Your task to perform on an android device: toggle improve location accuracy Image 0: 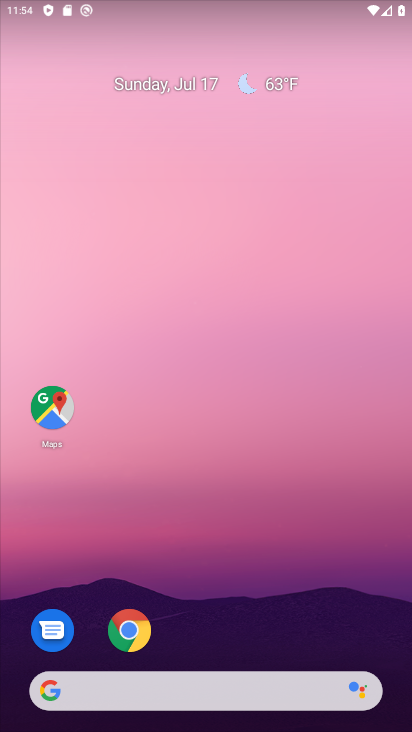
Step 0: drag from (234, 649) to (292, 98)
Your task to perform on an android device: toggle improve location accuracy Image 1: 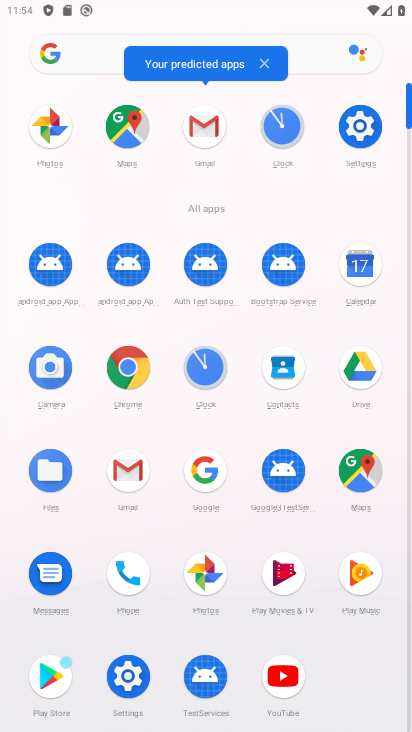
Step 1: click (130, 673)
Your task to perform on an android device: toggle improve location accuracy Image 2: 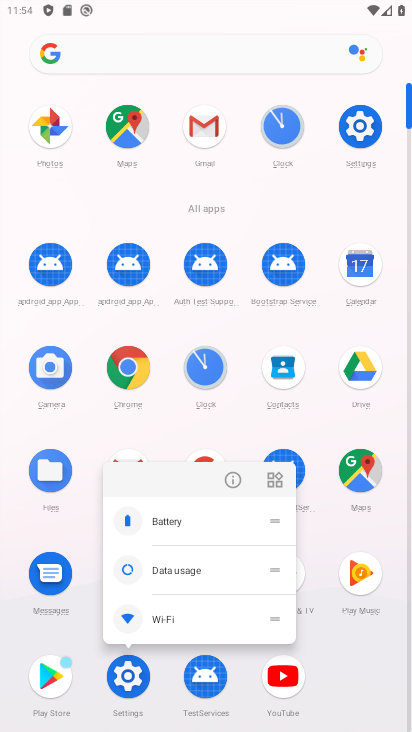
Step 2: click (130, 673)
Your task to perform on an android device: toggle improve location accuracy Image 3: 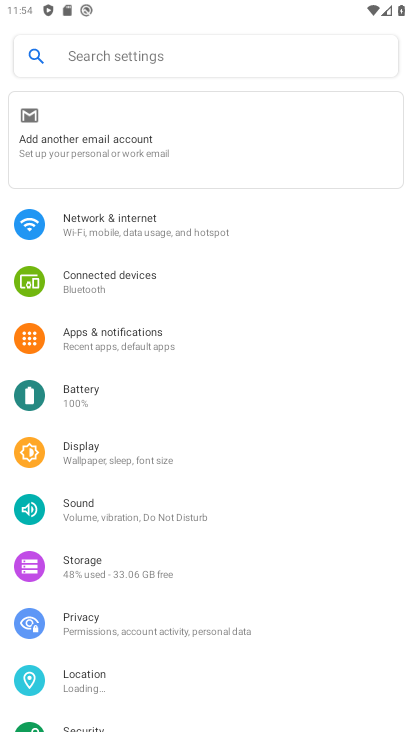
Step 3: click (131, 688)
Your task to perform on an android device: toggle improve location accuracy Image 4: 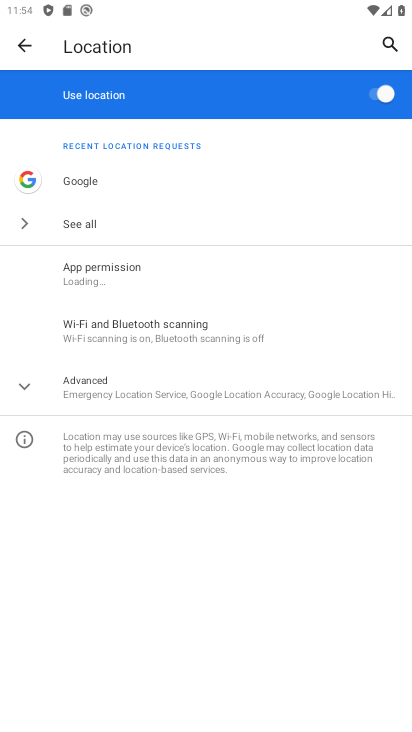
Step 4: click (162, 407)
Your task to perform on an android device: toggle improve location accuracy Image 5: 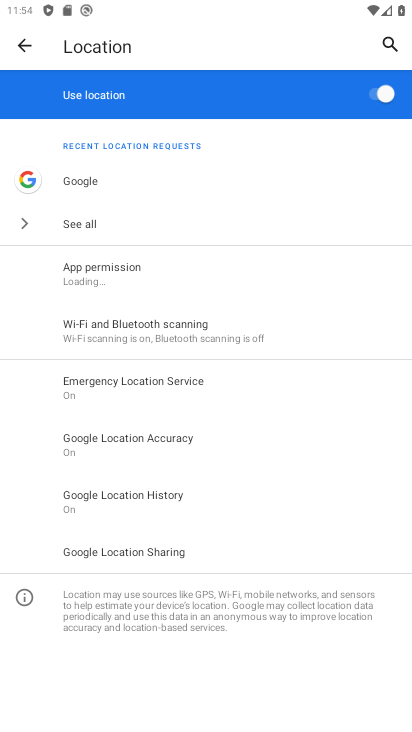
Step 5: click (159, 451)
Your task to perform on an android device: toggle improve location accuracy Image 6: 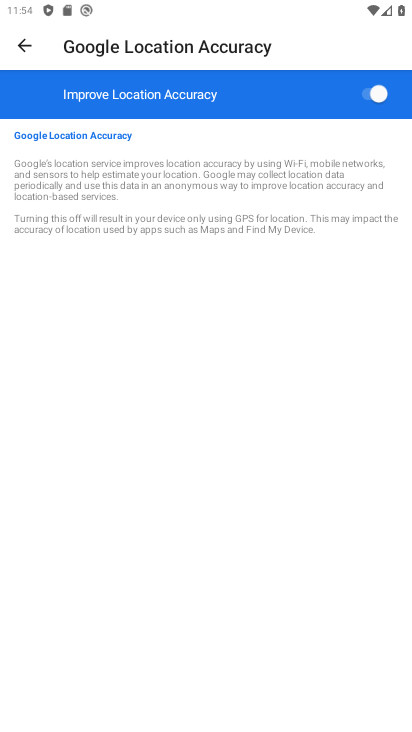
Step 6: click (368, 100)
Your task to perform on an android device: toggle improve location accuracy Image 7: 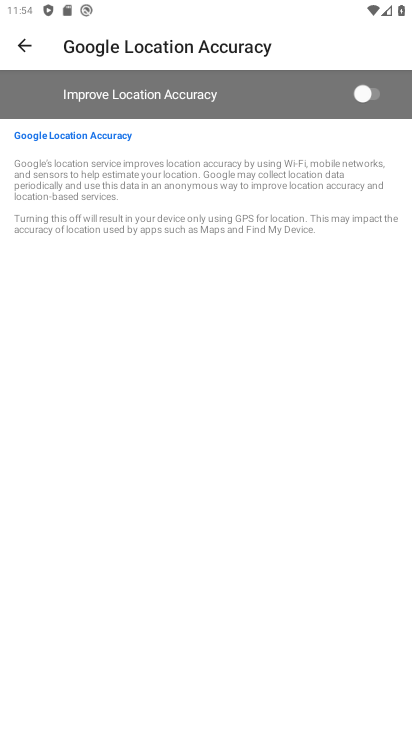
Step 7: task complete